Your task to perform on an android device: Search for vegetarian restaurants on Maps Image 0: 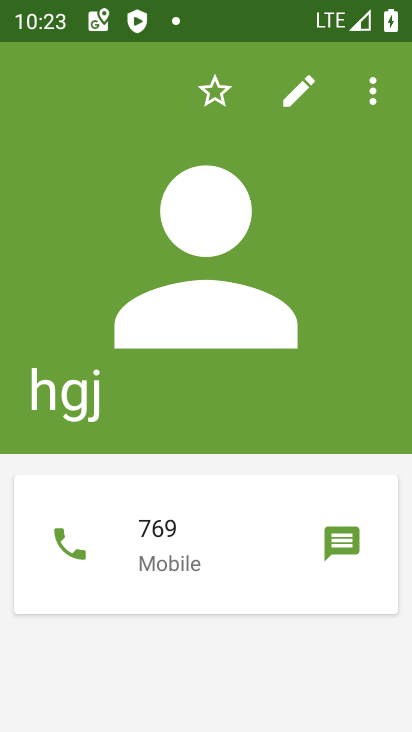
Step 0: press home button
Your task to perform on an android device: Search for vegetarian restaurants on Maps Image 1: 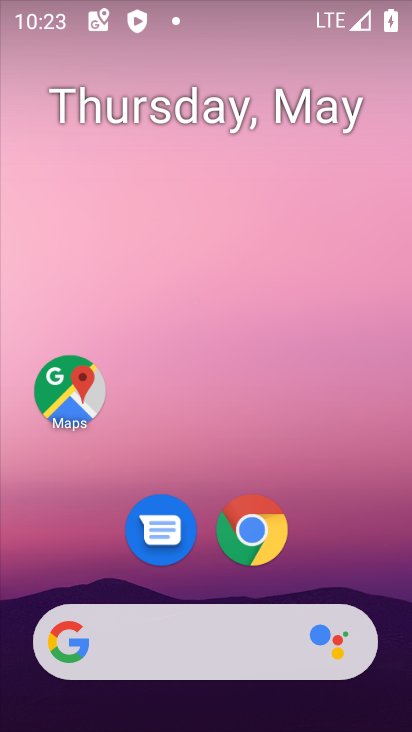
Step 1: click (86, 391)
Your task to perform on an android device: Search for vegetarian restaurants on Maps Image 2: 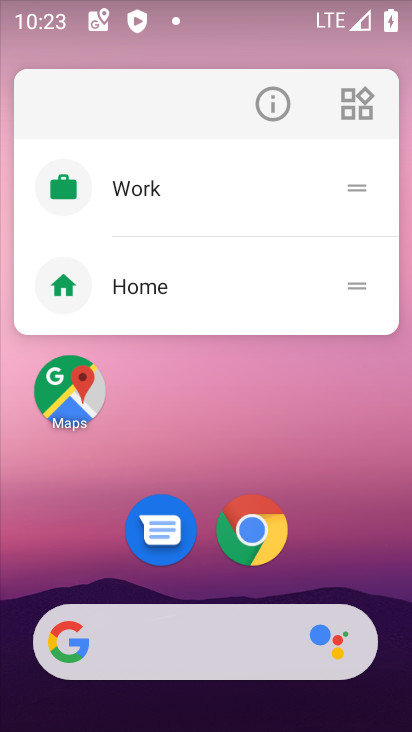
Step 2: click (55, 394)
Your task to perform on an android device: Search for vegetarian restaurants on Maps Image 3: 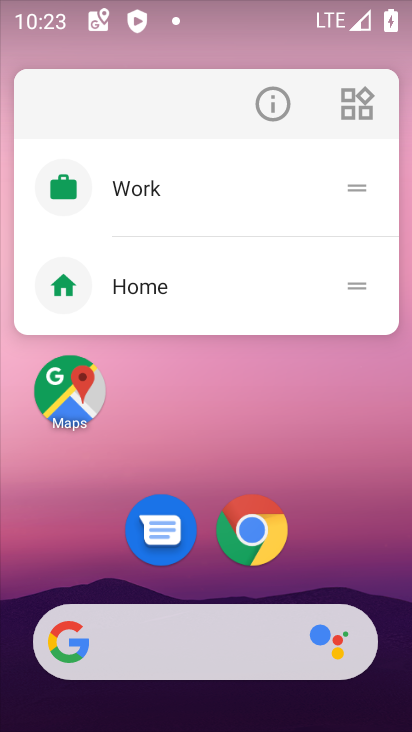
Step 3: click (55, 394)
Your task to perform on an android device: Search for vegetarian restaurants on Maps Image 4: 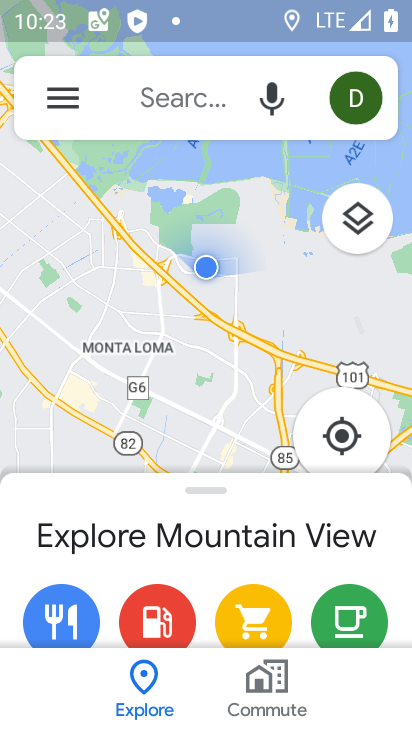
Step 4: click (186, 96)
Your task to perform on an android device: Search for vegetarian restaurants on Maps Image 5: 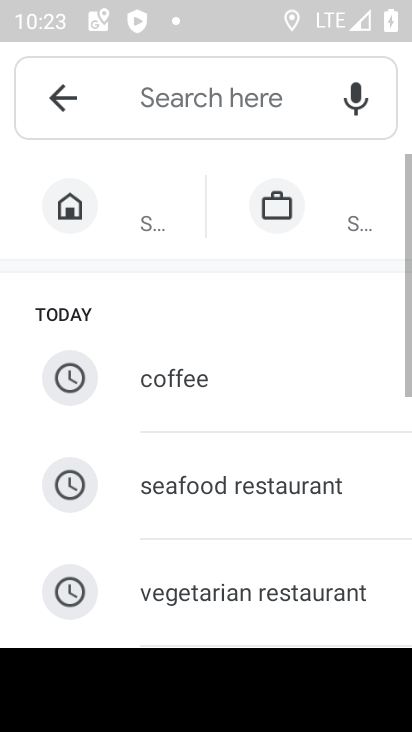
Step 5: click (260, 592)
Your task to perform on an android device: Search for vegetarian restaurants on Maps Image 6: 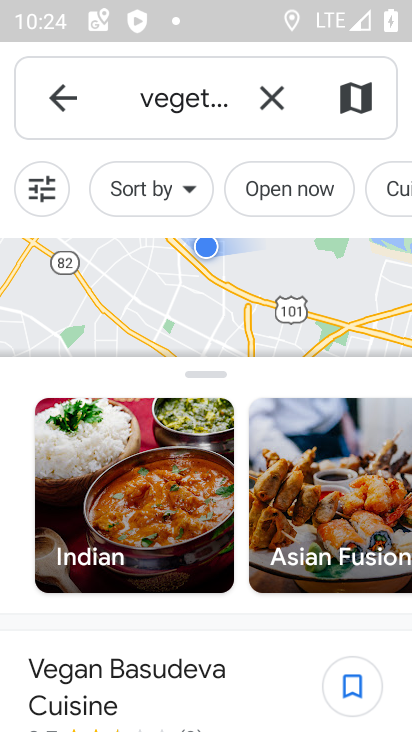
Step 6: task complete